Your task to perform on an android device: Open my contact list Image 0: 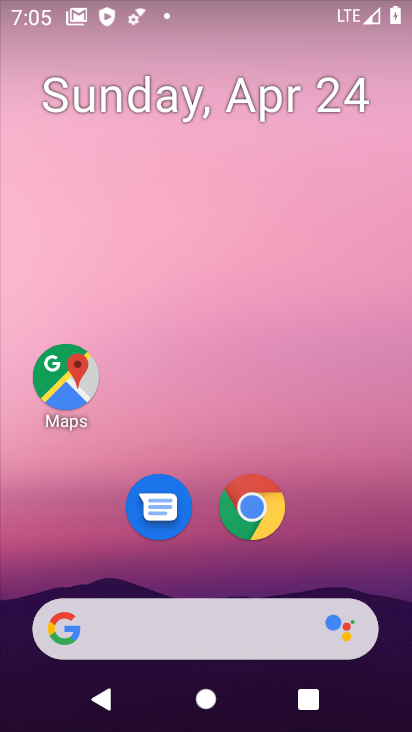
Step 0: drag from (363, 542) to (353, 19)
Your task to perform on an android device: Open my contact list Image 1: 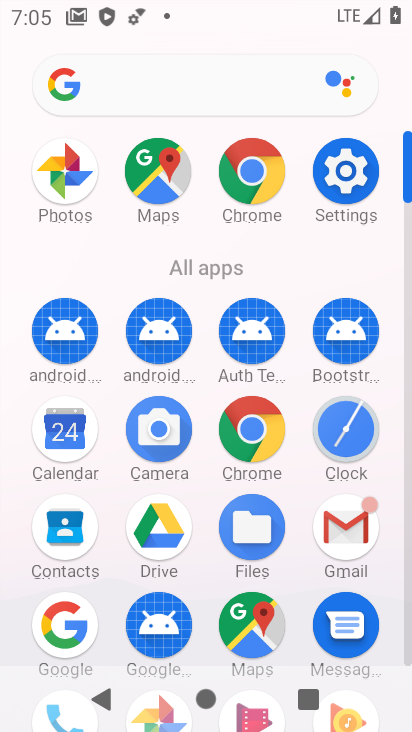
Step 1: drag from (381, 551) to (348, 173)
Your task to perform on an android device: Open my contact list Image 2: 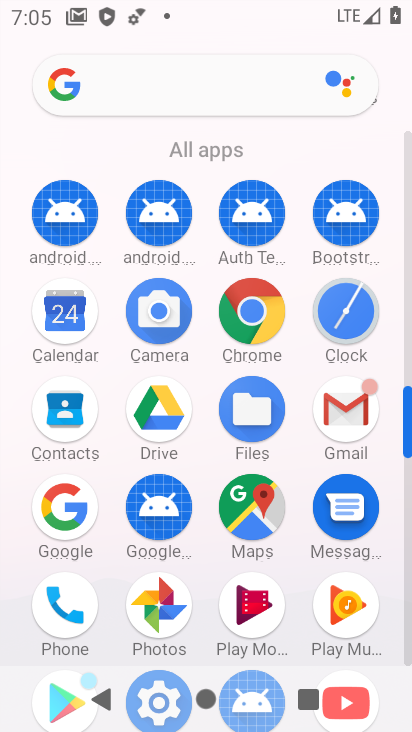
Step 2: click (86, 410)
Your task to perform on an android device: Open my contact list Image 3: 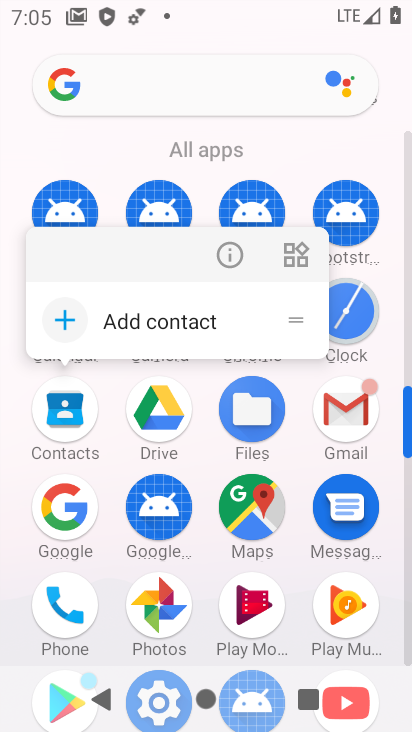
Step 3: click (57, 412)
Your task to perform on an android device: Open my contact list Image 4: 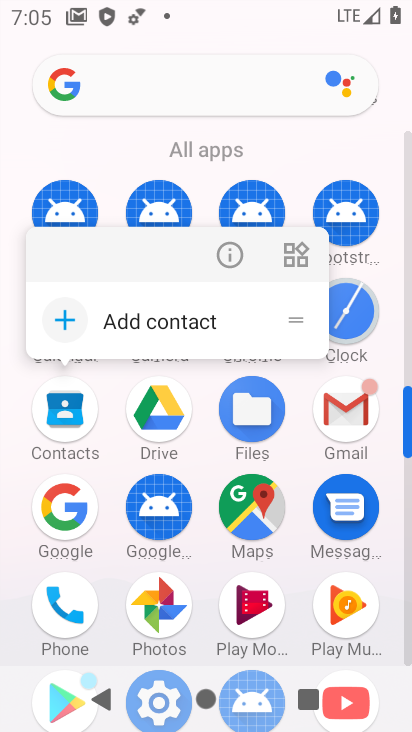
Step 4: click (57, 412)
Your task to perform on an android device: Open my contact list Image 5: 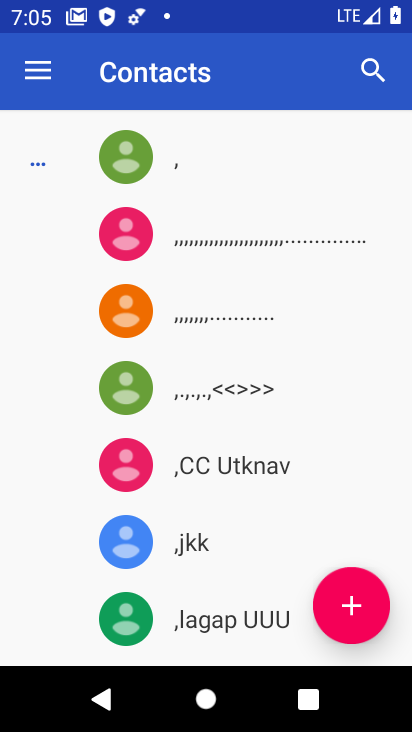
Step 5: task complete